Your task to perform on an android device: make emails show in primary in the gmail app Image 0: 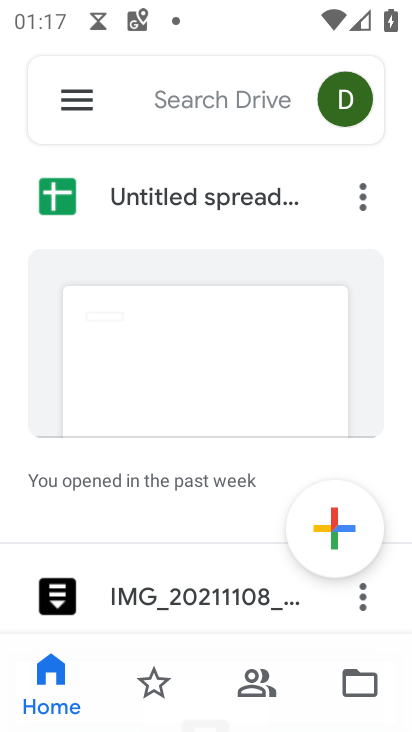
Step 0: press home button
Your task to perform on an android device: make emails show in primary in the gmail app Image 1: 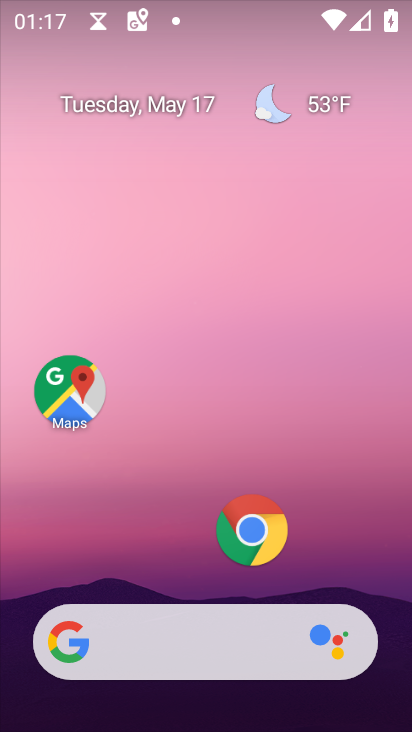
Step 1: drag from (205, 561) to (6, 510)
Your task to perform on an android device: make emails show in primary in the gmail app Image 2: 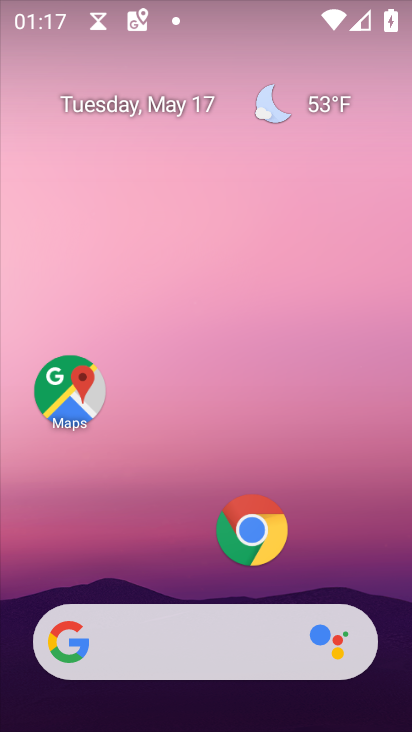
Step 2: drag from (8, 330) to (25, 37)
Your task to perform on an android device: make emails show in primary in the gmail app Image 3: 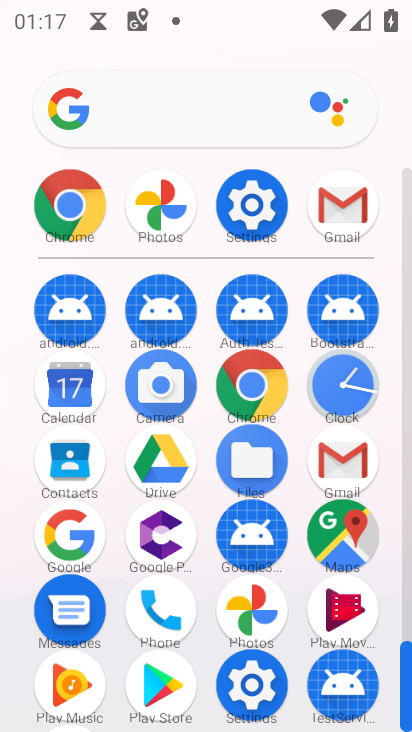
Step 3: click (338, 454)
Your task to perform on an android device: make emails show in primary in the gmail app Image 4: 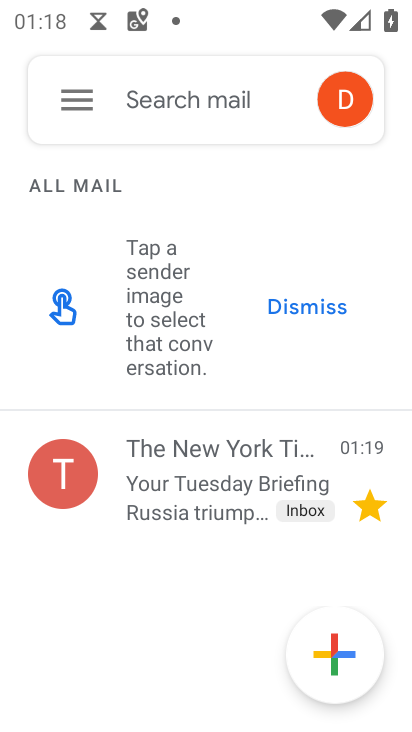
Step 4: click (74, 104)
Your task to perform on an android device: make emails show in primary in the gmail app Image 5: 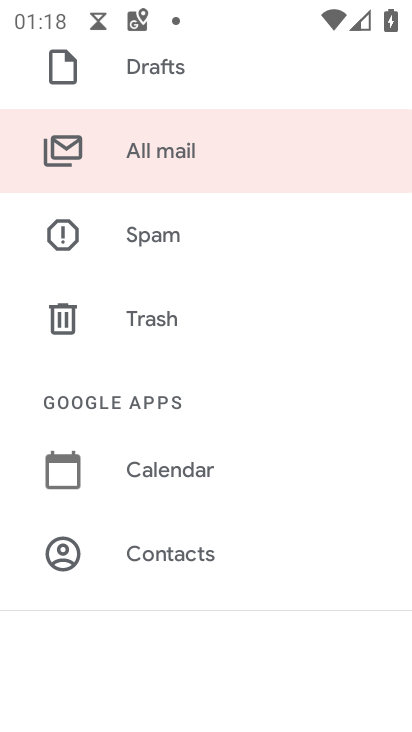
Step 5: drag from (196, 321) to (248, 680)
Your task to perform on an android device: make emails show in primary in the gmail app Image 6: 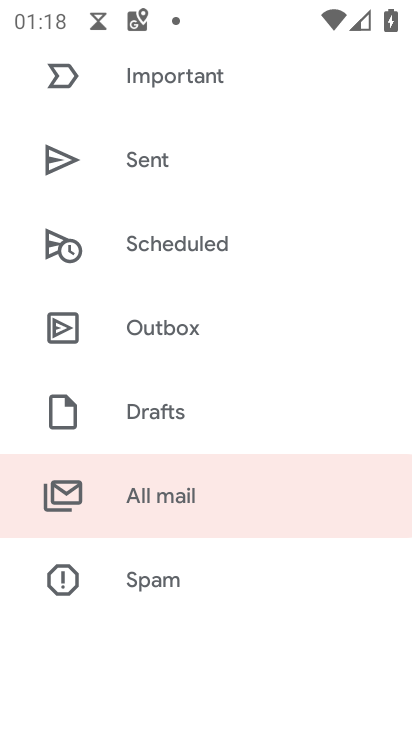
Step 6: drag from (174, 146) to (228, 590)
Your task to perform on an android device: make emails show in primary in the gmail app Image 7: 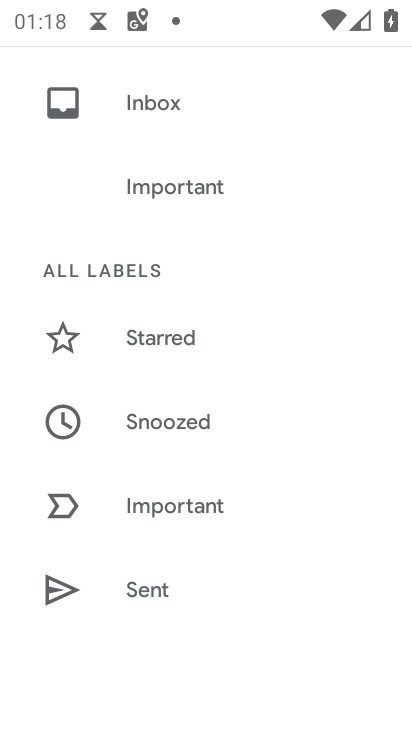
Step 7: drag from (160, 293) to (200, 588)
Your task to perform on an android device: make emails show in primary in the gmail app Image 8: 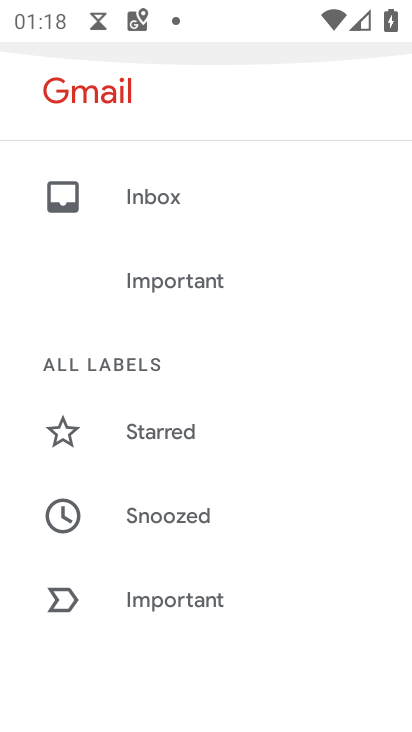
Step 8: drag from (190, 407) to (164, 163)
Your task to perform on an android device: make emails show in primary in the gmail app Image 9: 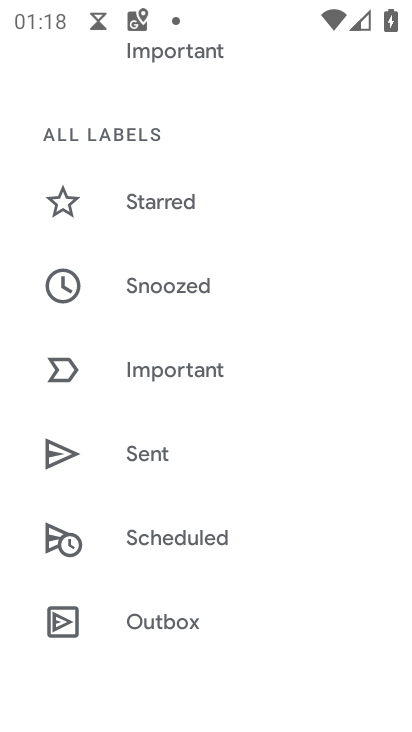
Step 9: drag from (231, 593) to (190, 223)
Your task to perform on an android device: make emails show in primary in the gmail app Image 10: 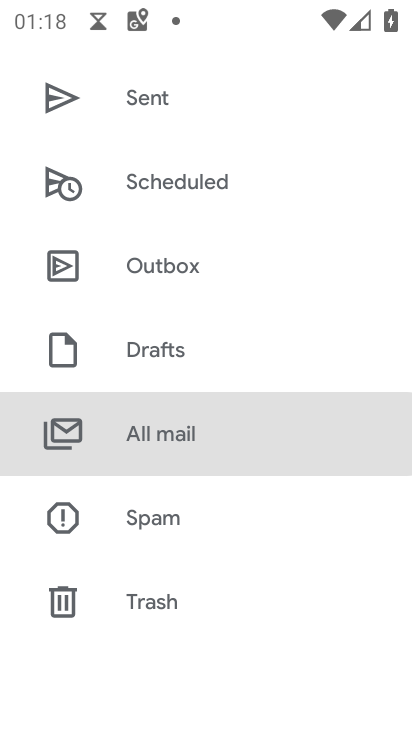
Step 10: drag from (192, 551) to (177, 270)
Your task to perform on an android device: make emails show in primary in the gmail app Image 11: 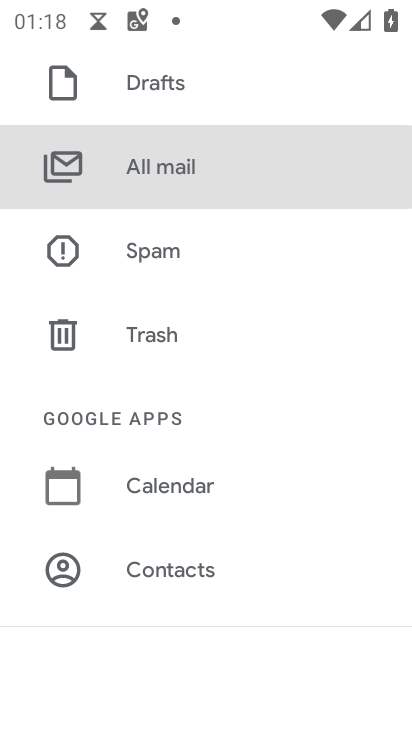
Step 11: drag from (200, 499) to (202, 277)
Your task to perform on an android device: make emails show in primary in the gmail app Image 12: 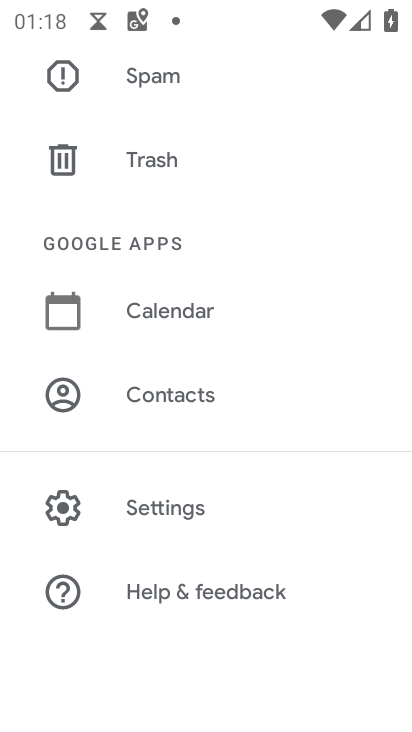
Step 12: click (203, 494)
Your task to perform on an android device: make emails show in primary in the gmail app Image 13: 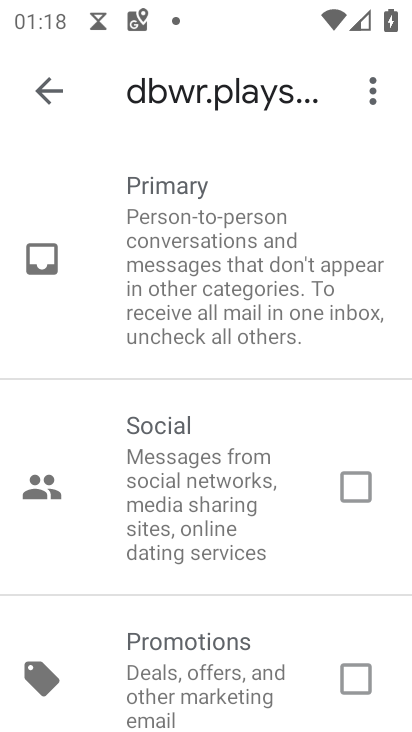
Step 13: drag from (186, 629) to (172, 141)
Your task to perform on an android device: make emails show in primary in the gmail app Image 14: 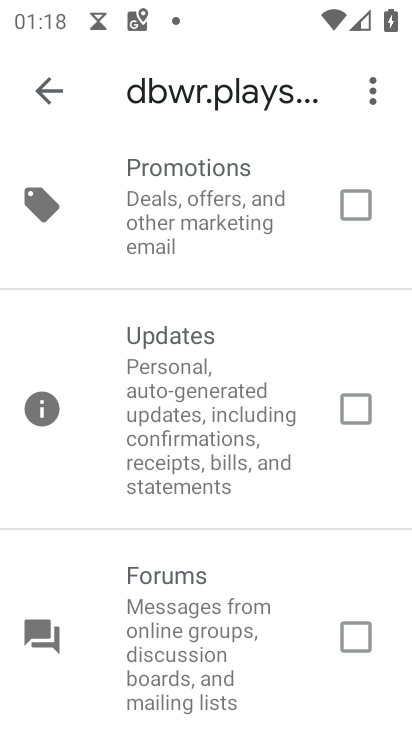
Step 14: drag from (211, 464) to (192, 225)
Your task to perform on an android device: make emails show in primary in the gmail app Image 15: 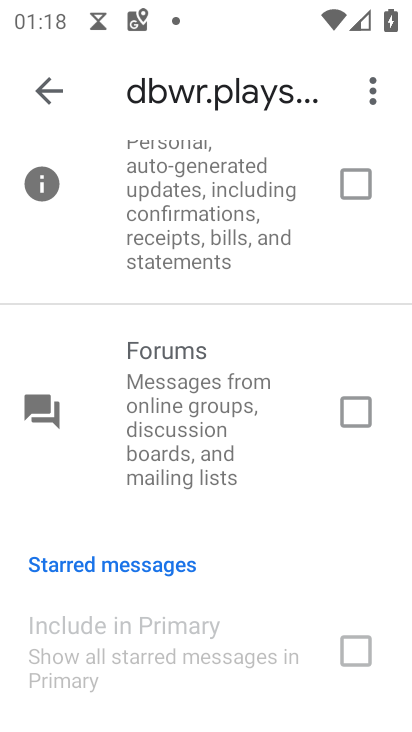
Step 15: click (187, 411)
Your task to perform on an android device: make emails show in primary in the gmail app Image 16: 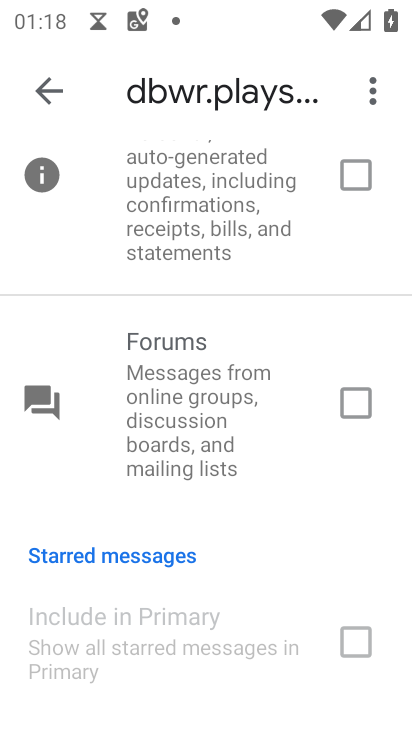
Step 16: click (53, 89)
Your task to perform on an android device: make emails show in primary in the gmail app Image 17: 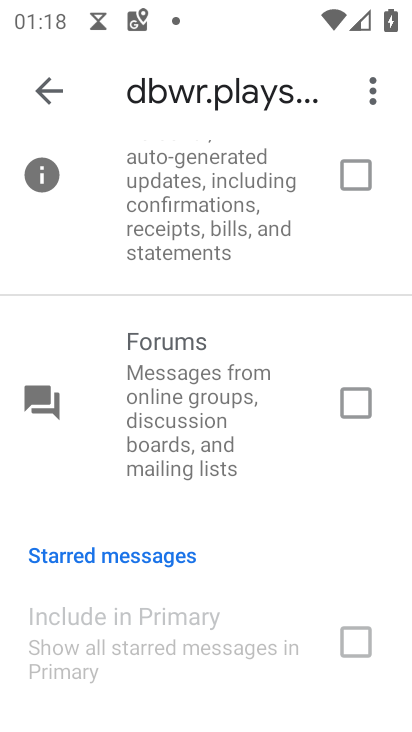
Step 17: click (53, 89)
Your task to perform on an android device: make emails show in primary in the gmail app Image 18: 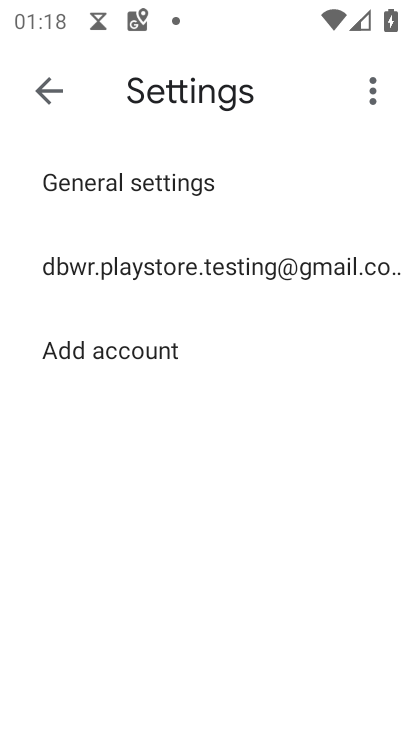
Step 18: click (77, 260)
Your task to perform on an android device: make emails show in primary in the gmail app Image 19: 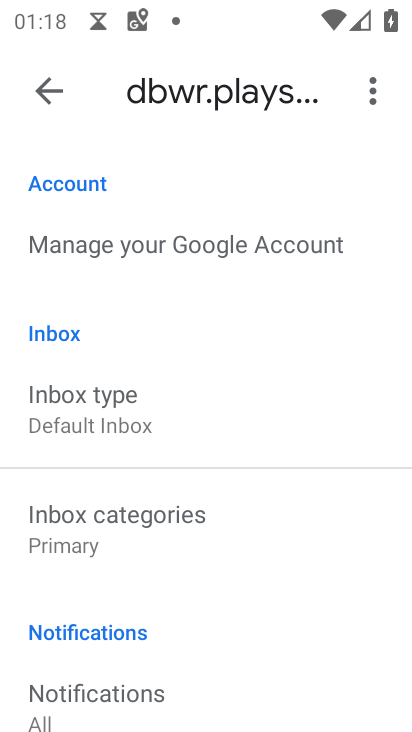
Step 19: click (108, 421)
Your task to perform on an android device: make emails show in primary in the gmail app Image 20: 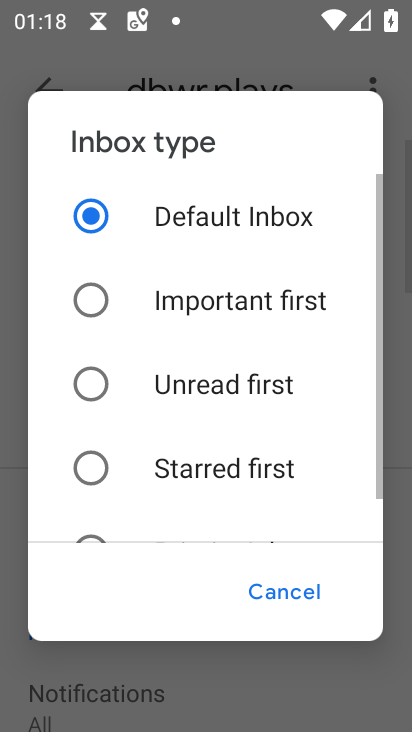
Step 20: drag from (203, 492) to (180, 312)
Your task to perform on an android device: make emails show in primary in the gmail app Image 21: 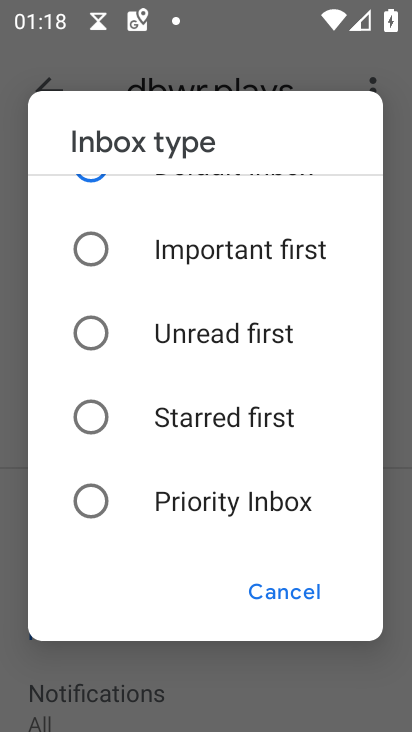
Step 21: drag from (171, 373) to (169, 307)
Your task to perform on an android device: make emails show in primary in the gmail app Image 22: 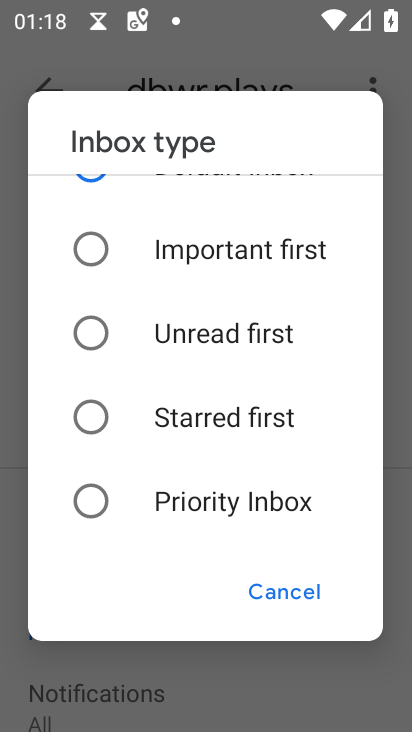
Step 22: drag from (173, 310) to (231, 640)
Your task to perform on an android device: make emails show in primary in the gmail app Image 23: 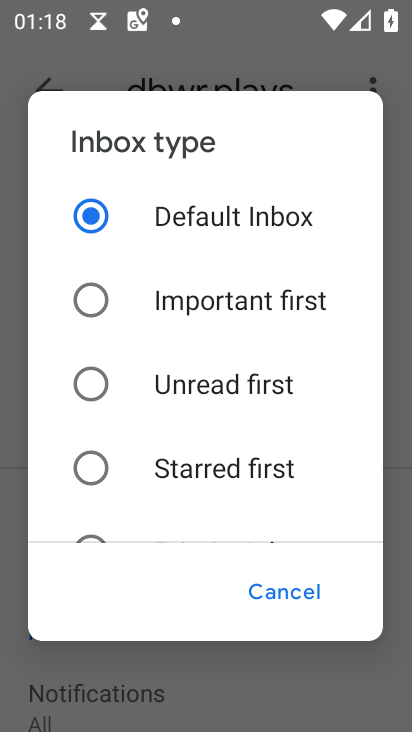
Step 23: drag from (260, 463) to (264, 154)
Your task to perform on an android device: make emails show in primary in the gmail app Image 24: 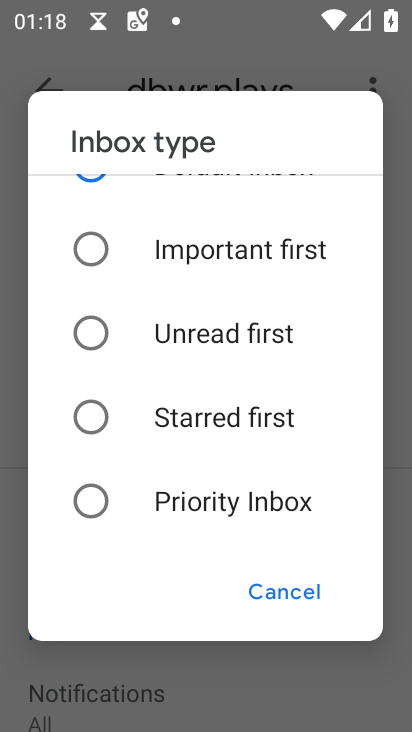
Step 24: drag from (210, 363) to (237, 508)
Your task to perform on an android device: make emails show in primary in the gmail app Image 25: 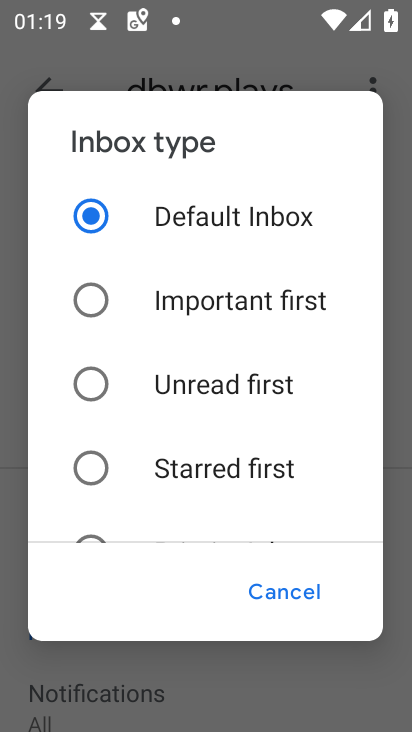
Step 25: click (197, 303)
Your task to perform on an android device: make emails show in primary in the gmail app Image 26: 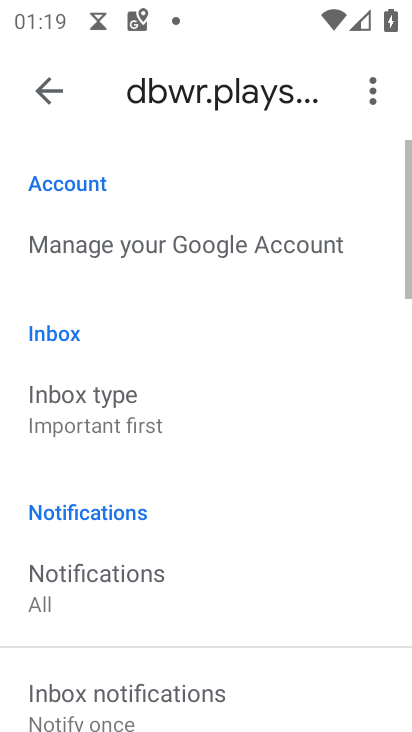
Step 26: click (201, 303)
Your task to perform on an android device: make emails show in primary in the gmail app Image 27: 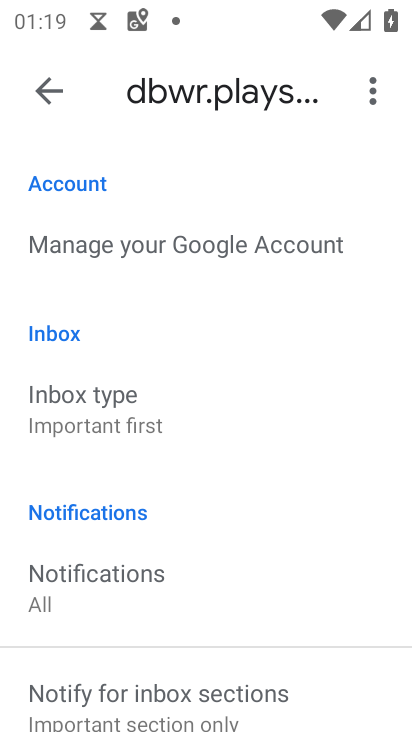
Step 27: task complete